Your task to perform on an android device: Open Youtube and go to "Your channel" Image 0: 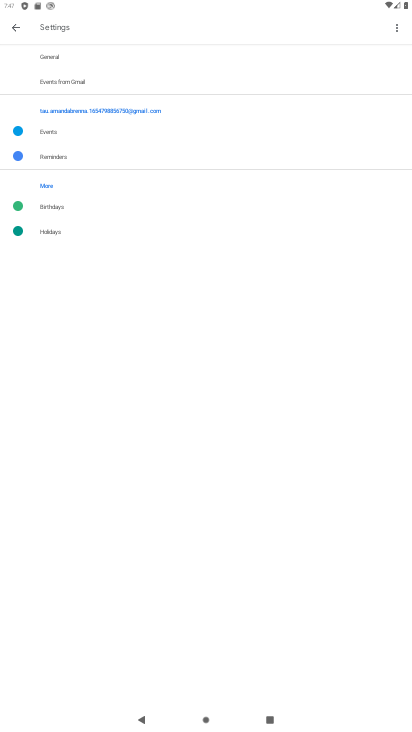
Step 0: press home button
Your task to perform on an android device: Open Youtube and go to "Your channel" Image 1: 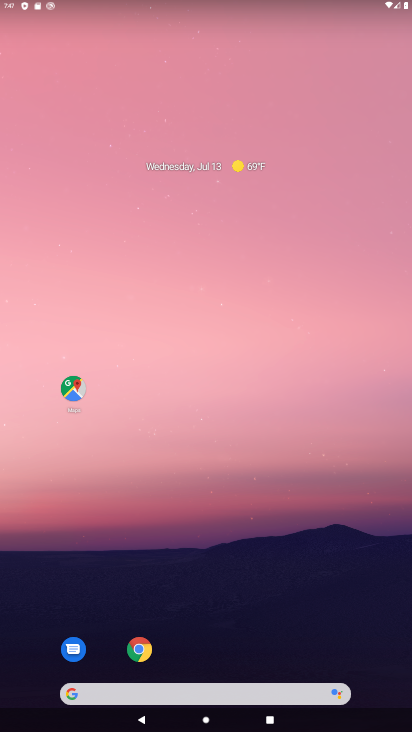
Step 1: drag from (185, 698) to (232, 213)
Your task to perform on an android device: Open Youtube and go to "Your channel" Image 2: 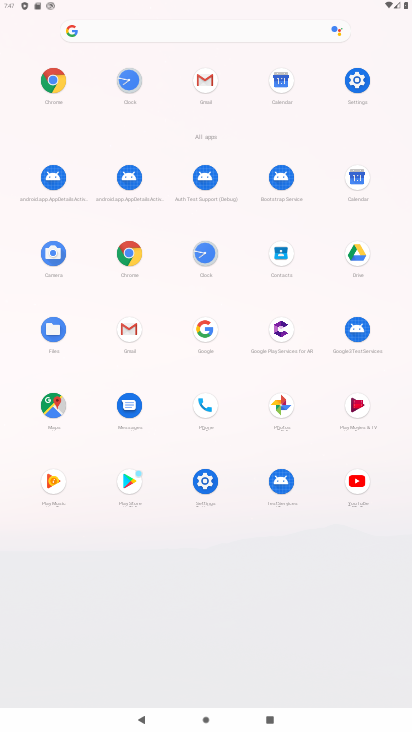
Step 2: click (357, 480)
Your task to perform on an android device: Open Youtube and go to "Your channel" Image 3: 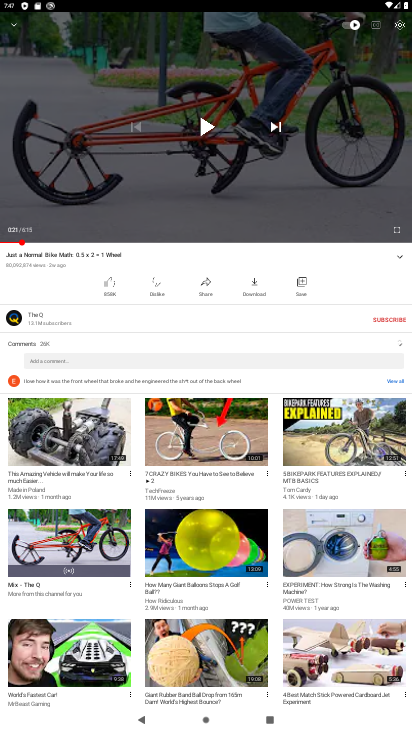
Step 3: press back button
Your task to perform on an android device: Open Youtube and go to "Your channel" Image 4: 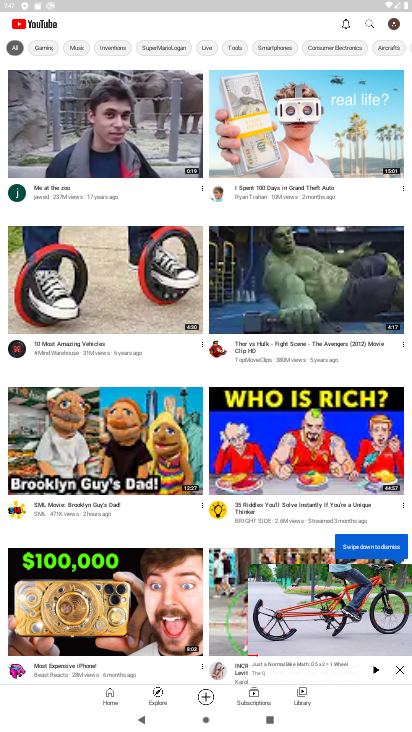
Step 4: click (396, 26)
Your task to perform on an android device: Open Youtube and go to "Your channel" Image 5: 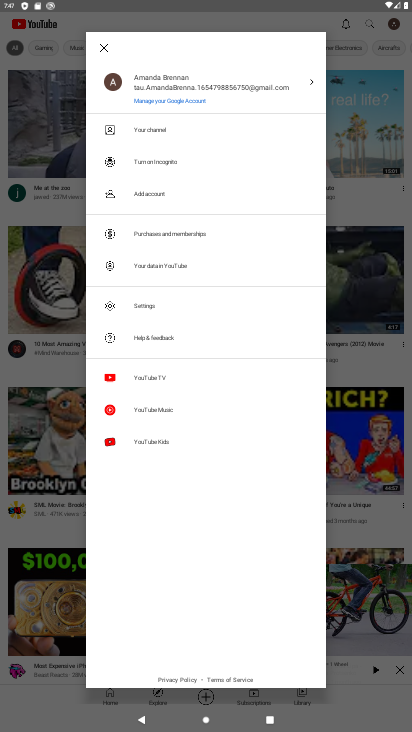
Step 5: click (148, 129)
Your task to perform on an android device: Open Youtube and go to "Your channel" Image 6: 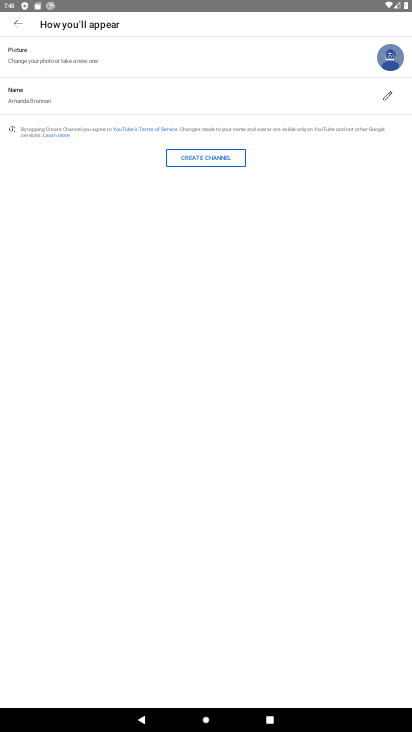
Step 6: task complete